Your task to perform on an android device: turn pop-ups on in chrome Image 0: 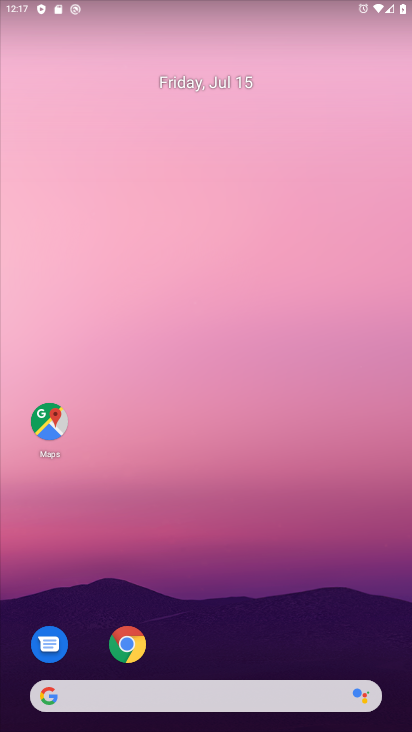
Step 0: click (123, 643)
Your task to perform on an android device: turn pop-ups on in chrome Image 1: 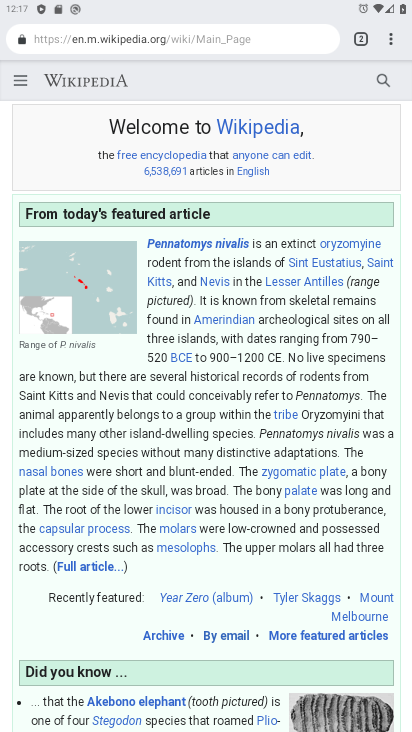
Step 1: click (390, 41)
Your task to perform on an android device: turn pop-ups on in chrome Image 2: 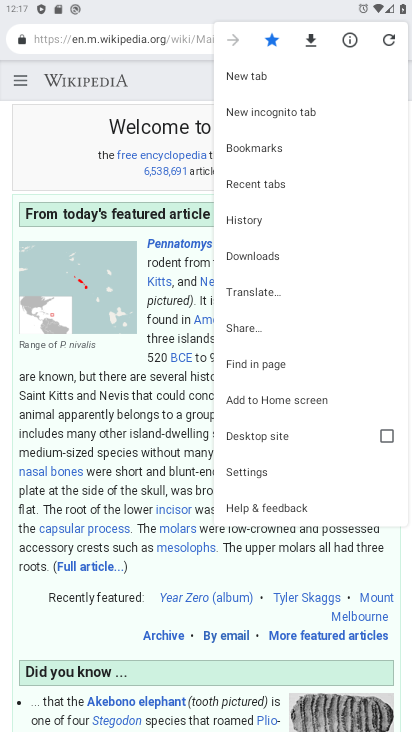
Step 2: click (250, 470)
Your task to perform on an android device: turn pop-ups on in chrome Image 3: 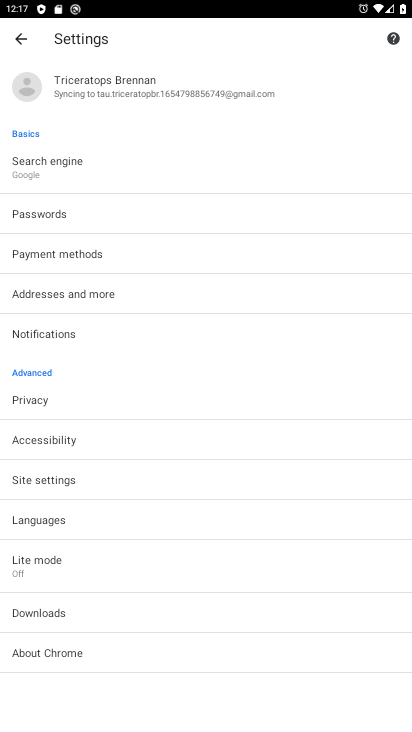
Step 3: click (45, 476)
Your task to perform on an android device: turn pop-ups on in chrome Image 4: 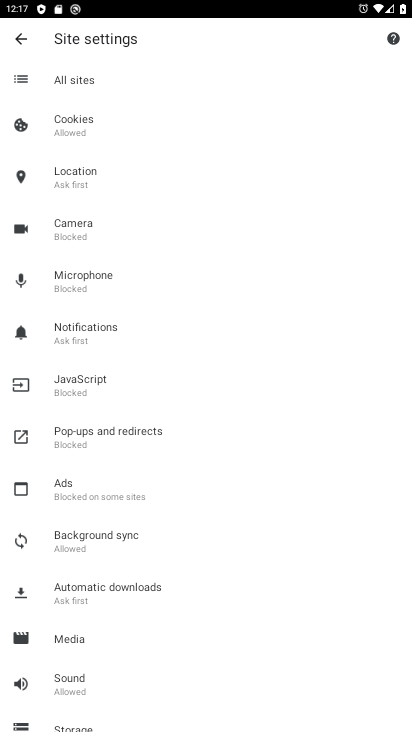
Step 4: click (75, 433)
Your task to perform on an android device: turn pop-ups on in chrome Image 5: 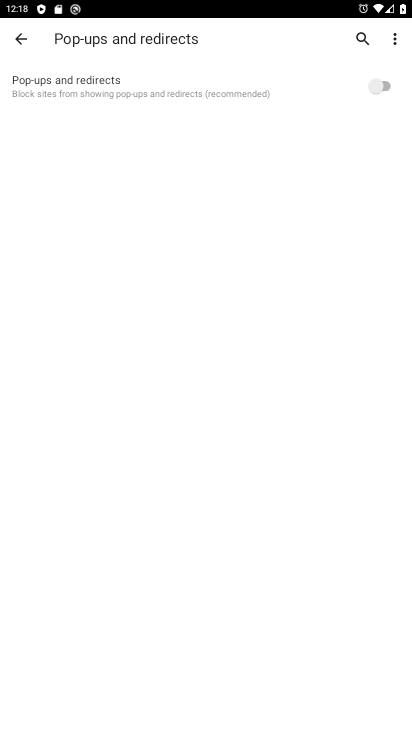
Step 5: click (388, 83)
Your task to perform on an android device: turn pop-ups on in chrome Image 6: 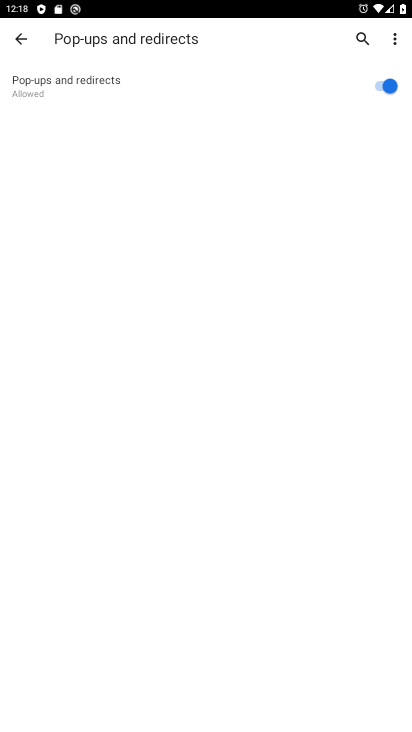
Step 6: task complete